Your task to perform on an android device: change the upload size in google photos Image 0: 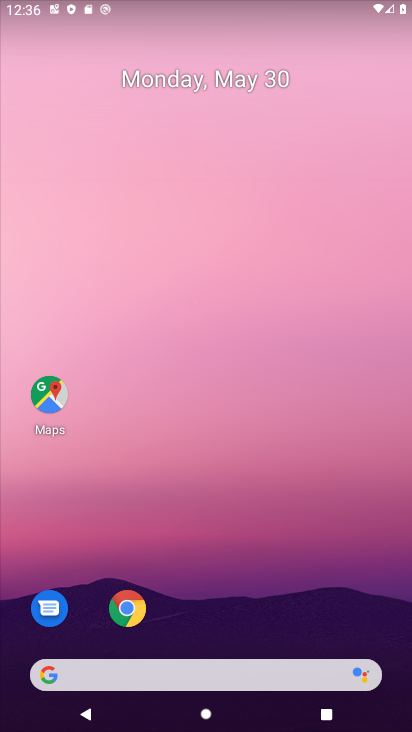
Step 0: drag from (193, 597) to (187, 324)
Your task to perform on an android device: change the upload size in google photos Image 1: 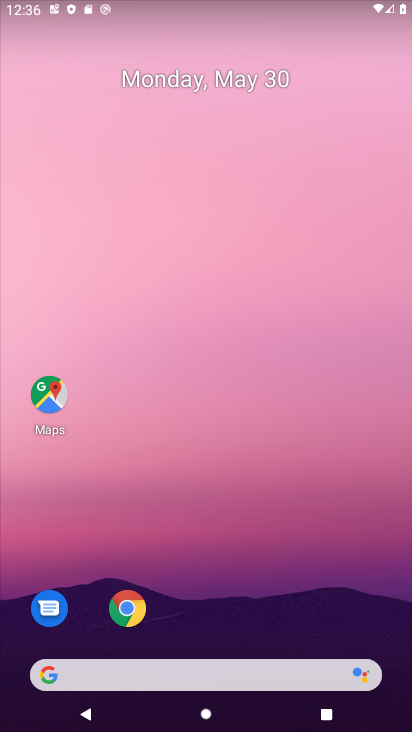
Step 1: drag from (263, 623) to (215, 203)
Your task to perform on an android device: change the upload size in google photos Image 2: 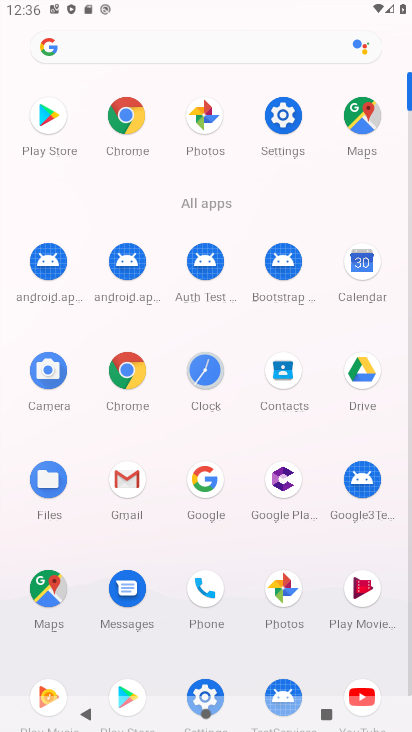
Step 2: click (206, 109)
Your task to perform on an android device: change the upload size in google photos Image 3: 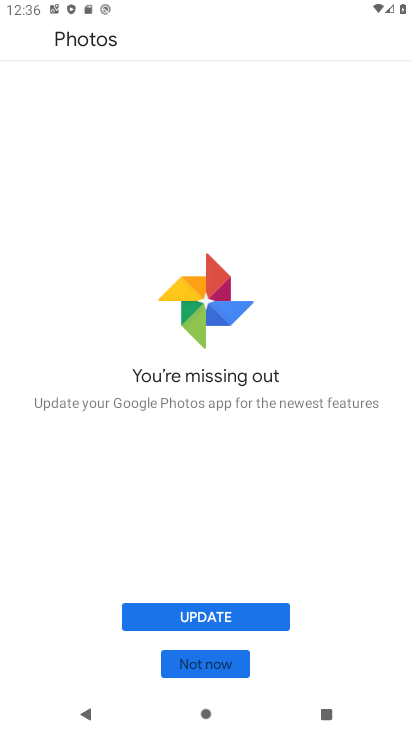
Step 3: click (186, 608)
Your task to perform on an android device: change the upload size in google photos Image 4: 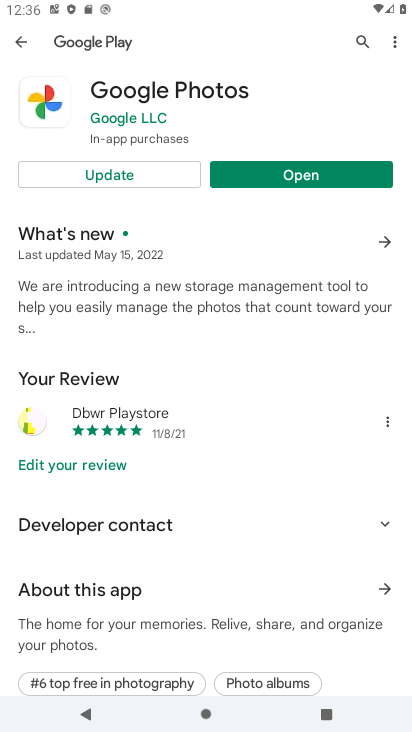
Step 4: click (153, 175)
Your task to perform on an android device: change the upload size in google photos Image 5: 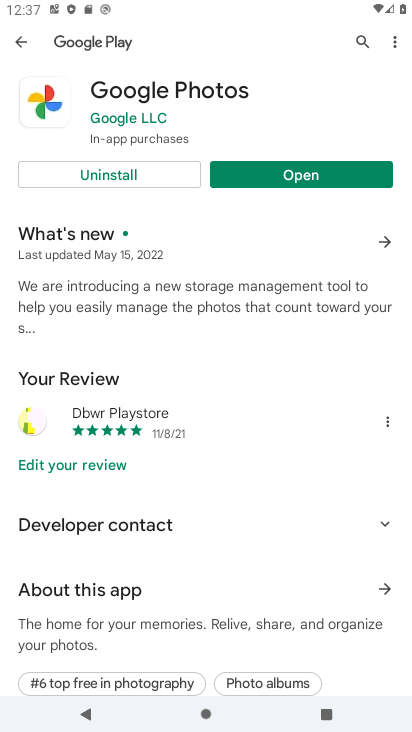
Step 5: click (247, 176)
Your task to perform on an android device: change the upload size in google photos Image 6: 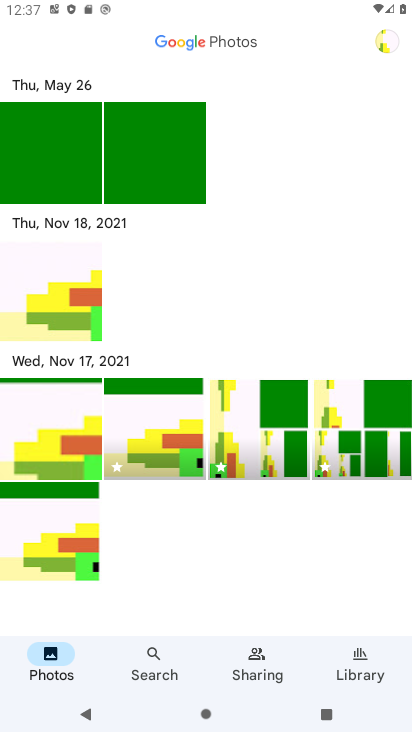
Step 6: drag from (185, 509) to (156, 196)
Your task to perform on an android device: change the upload size in google photos Image 7: 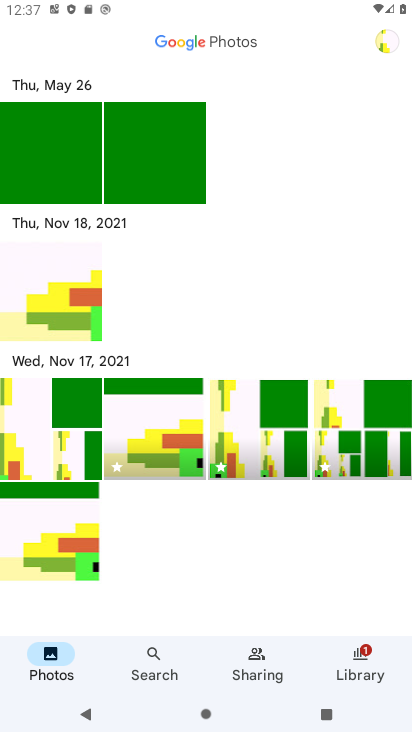
Step 7: click (392, 38)
Your task to perform on an android device: change the upload size in google photos Image 8: 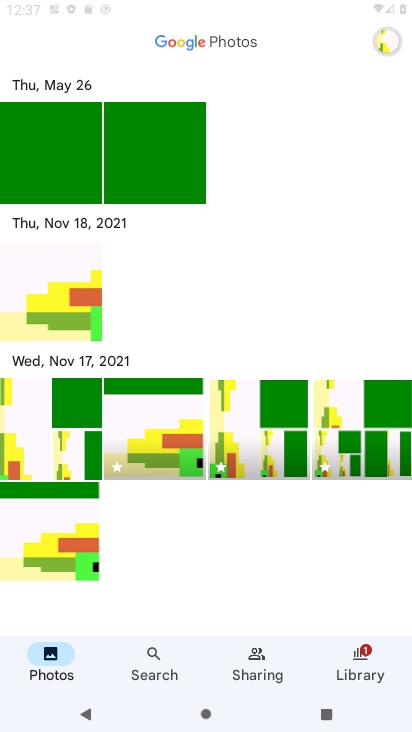
Step 8: click (392, 38)
Your task to perform on an android device: change the upload size in google photos Image 9: 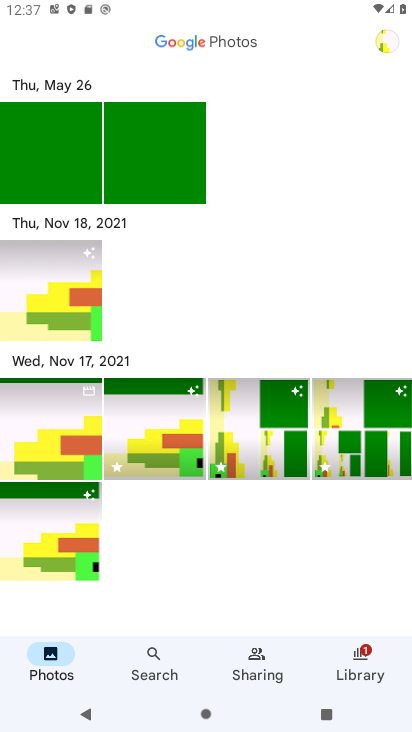
Step 9: click (395, 29)
Your task to perform on an android device: change the upload size in google photos Image 10: 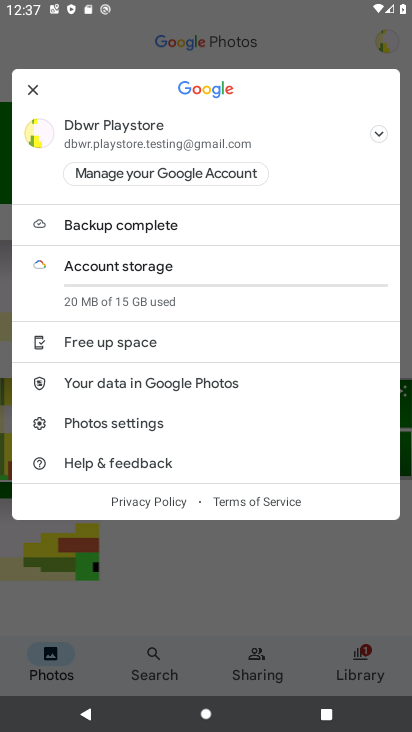
Step 10: click (99, 419)
Your task to perform on an android device: change the upload size in google photos Image 11: 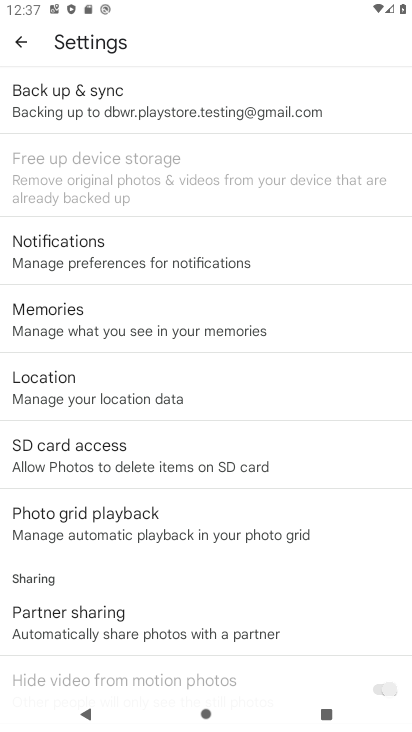
Step 11: task complete